Your task to perform on an android device: Open Android settings Image 0: 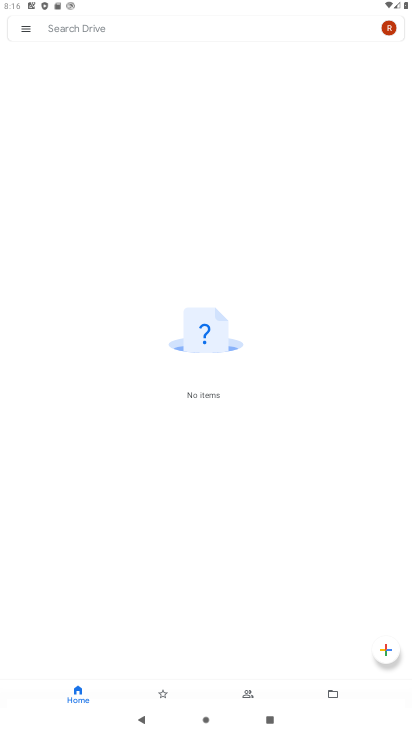
Step 0: press home button
Your task to perform on an android device: Open Android settings Image 1: 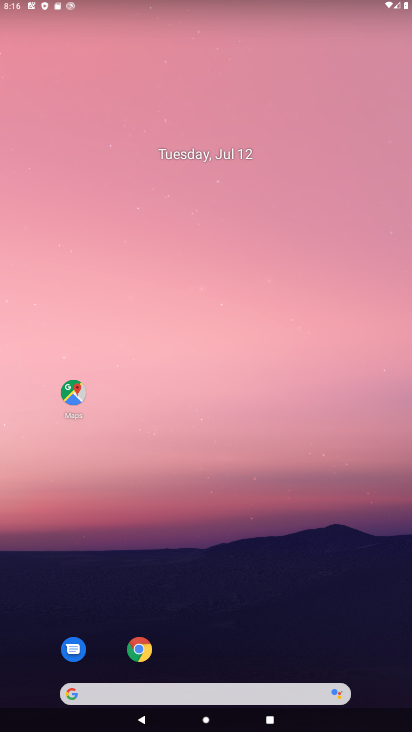
Step 1: drag from (235, 629) to (233, 172)
Your task to perform on an android device: Open Android settings Image 2: 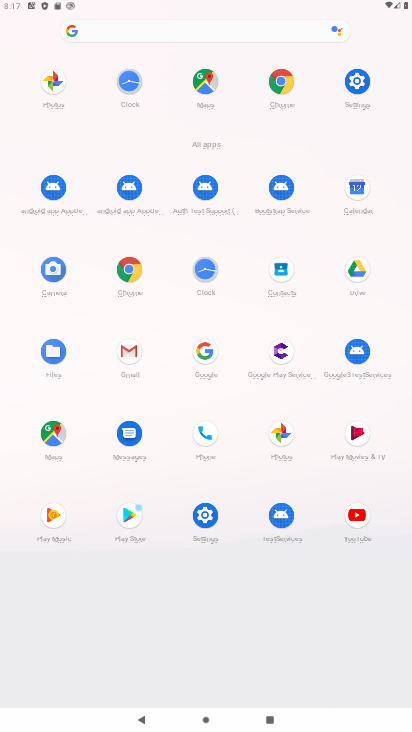
Step 2: click (364, 75)
Your task to perform on an android device: Open Android settings Image 3: 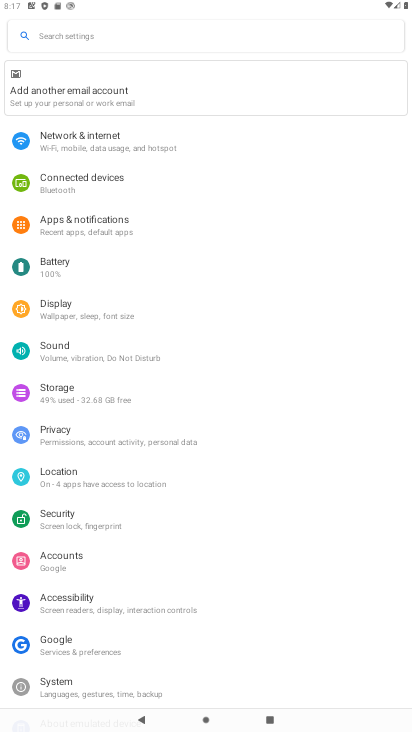
Step 3: task complete